Your task to perform on an android device: change keyboard looks Image 0: 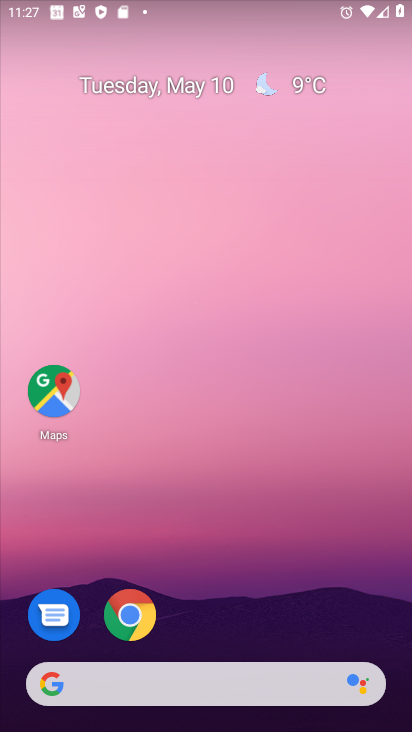
Step 0: drag from (195, 636) to (251, 211)
Your task to perform on an android device: change keyboard looks Image 1: 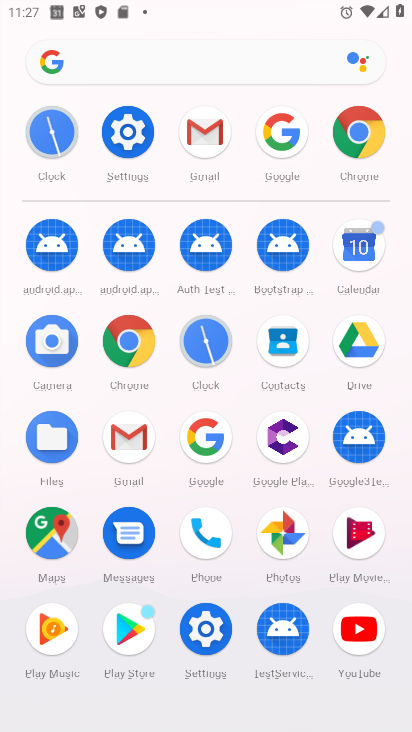
Step 1: click (122, 129)
Your task to perform on an android device: change keyboard looks Image 2: 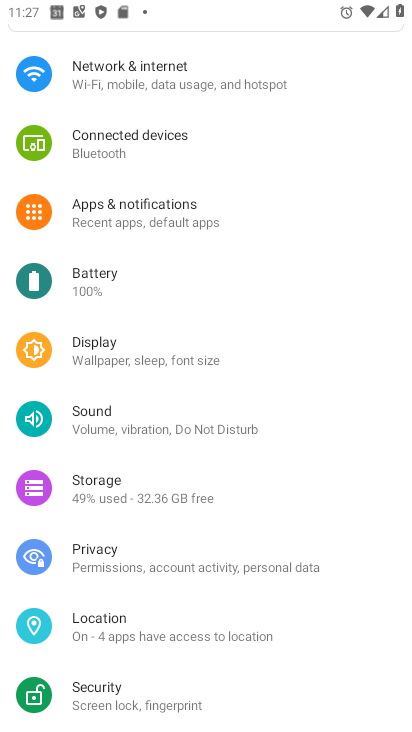
Step 2: drag from (162, 663) to (197, 71)
Your task to perform on an android device: change keyboard looks Image 3: 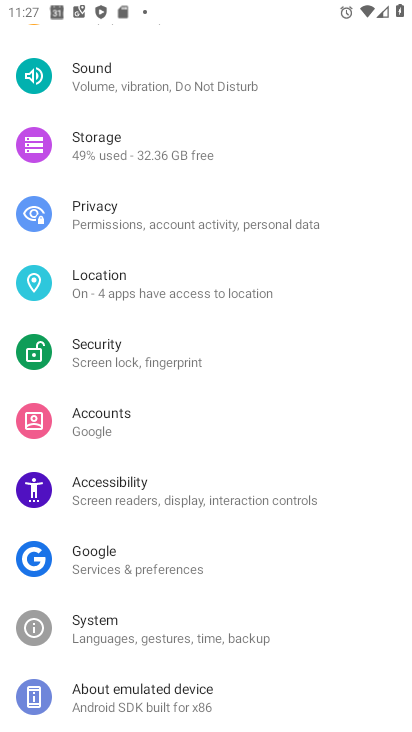
Step 3: click (122, 623)
Your task to perform on an android device: change keyboard looks Image 4: 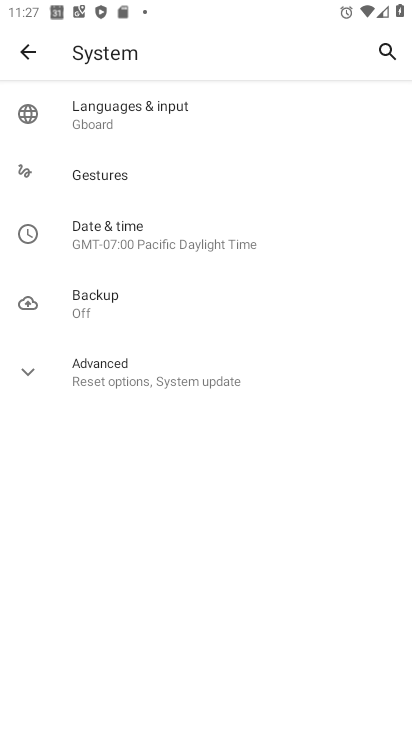
Step 4: click (110, 109)
Your task to perform on an android device: change keyboard looks Image 5: 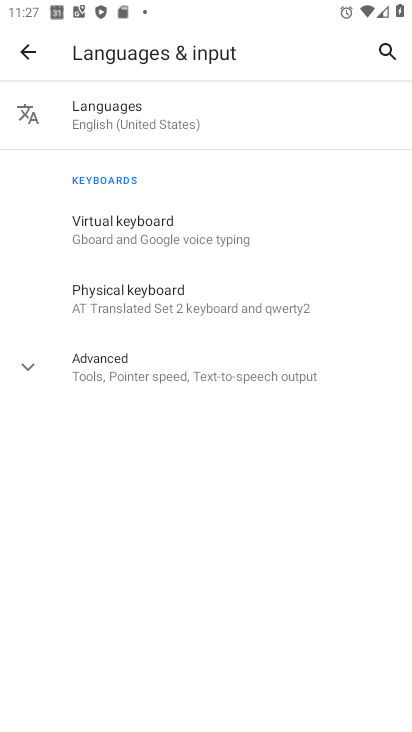
Step 5: click (115, 234)
Your task to perform on an android device: change keyboard looks Image 6: 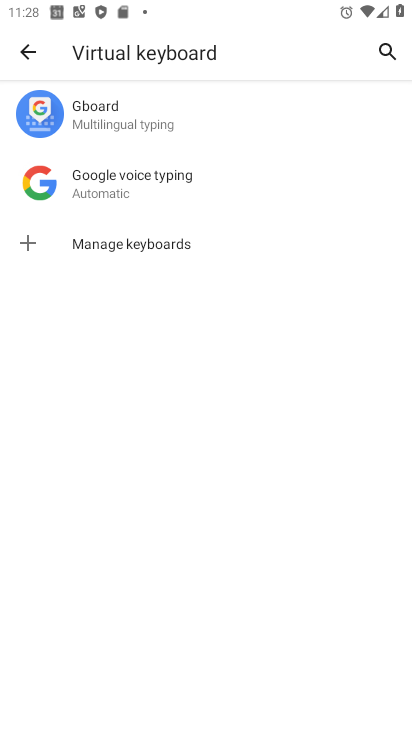
Step 6: click (129, 110)
Your task to perform on an android device: change keyboard looks Image 7: 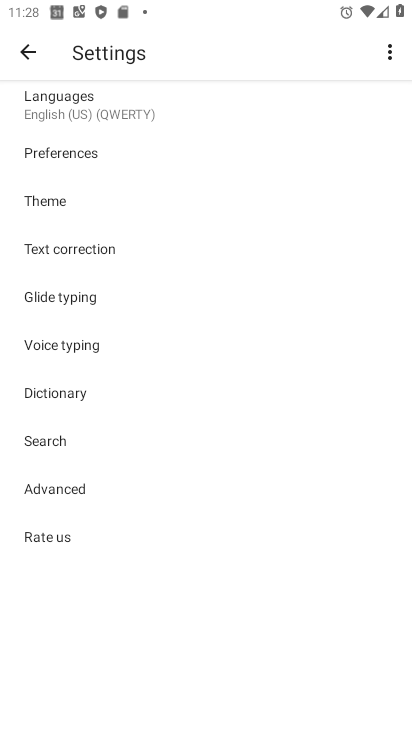
Step 7: click (121, 102)
Your task to perform on an android device: change keyboard looks Image 8: 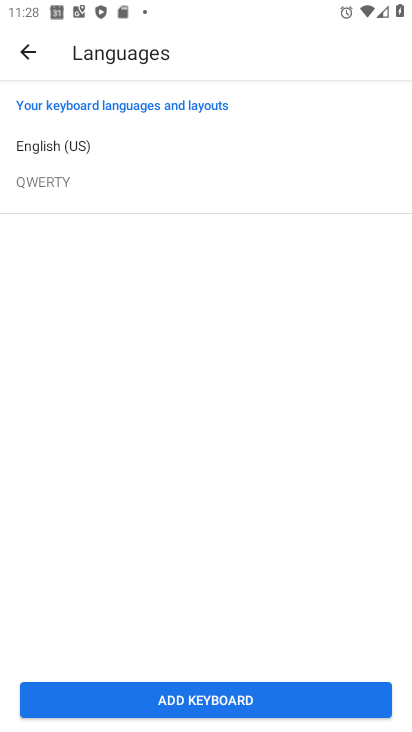
Step 8: click (36, 45)
Your task to perform on an android device: change keyboard looks Image 9: 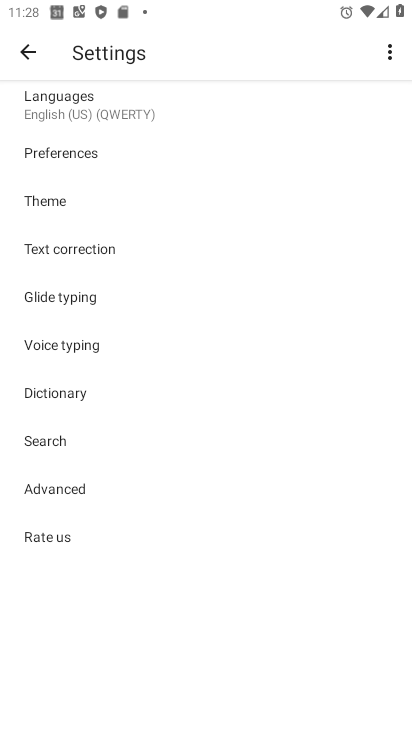
Step 9: click (79, 203)
Your task to perform on an android device: change keyboard looks Image 10: 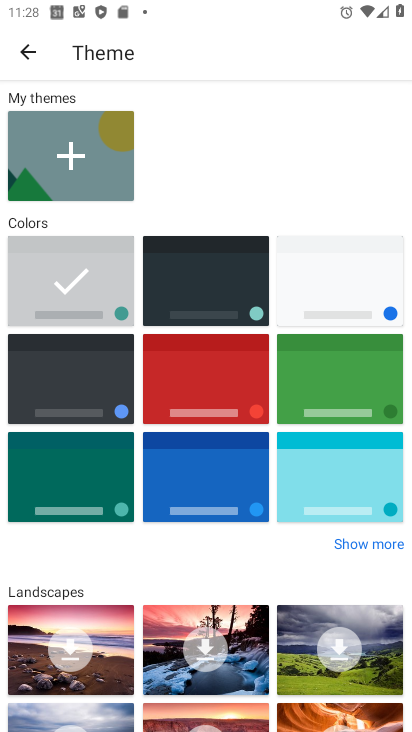
Step 10: click (227, 365)
Your task to perform on an android device: change keyboard looks Image 11: 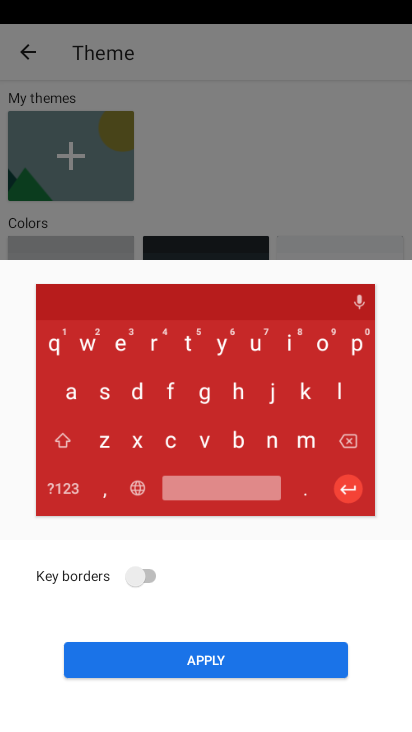
Step 11: click (219, 656)
Your task to perform on an android device: change keyboard looks Image 12: 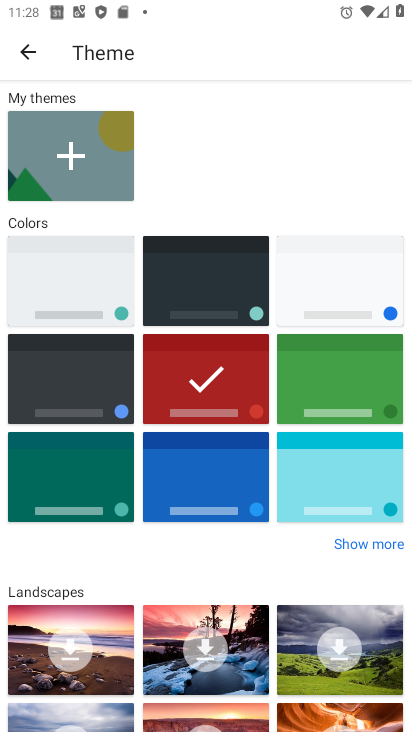
Step 12: task complete